Your task to perform on an android device: Open eBay Image 0: 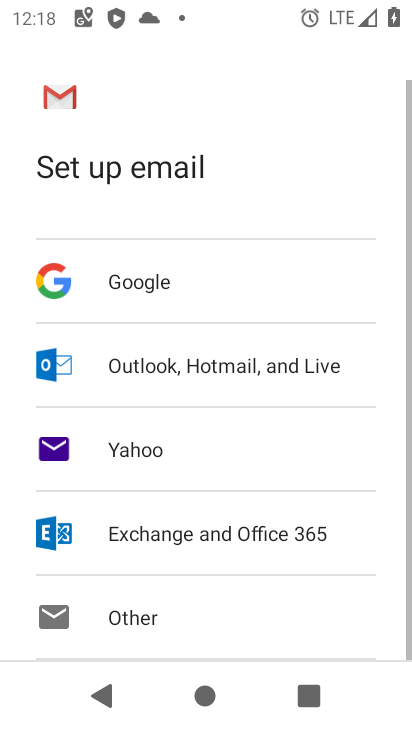
Step 0: press home button
Your task to perform on an android device: Open eBay Image 1: 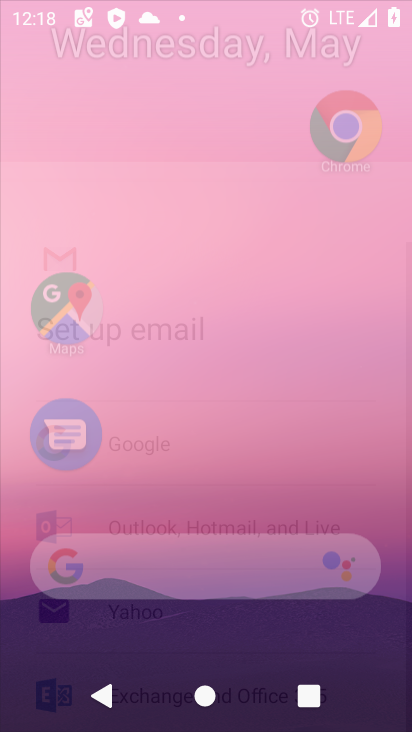
Step 1: drag from (193, 649) to (283, 138)
Your task to perform on an android device: Open eBay Image 2: 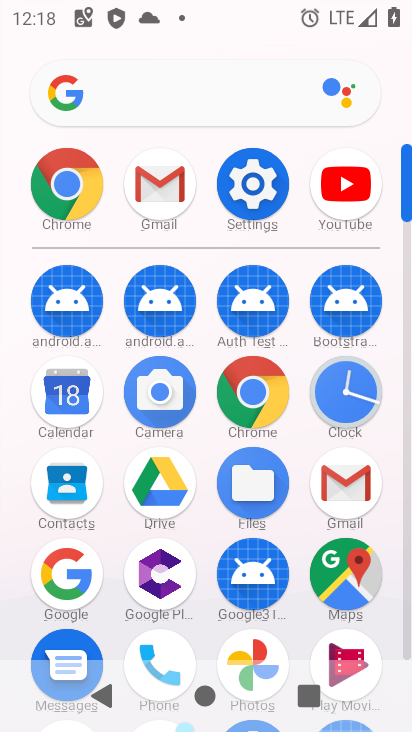
Step 2: click (190, 90)
Your task to perform on an android device: Open eBay Image 3: 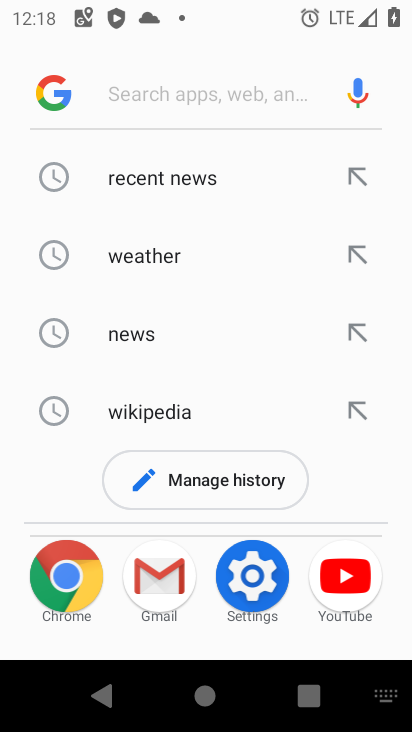
Step 3: type "ebay"
Your task to perform on an android device: Open eBay Image 4: 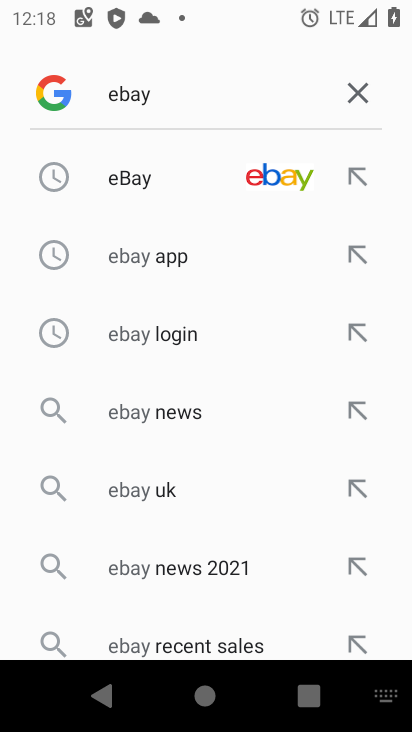
Step 4: click (166, 188)
Your task to perform on an android device: Open eBay Image 5: 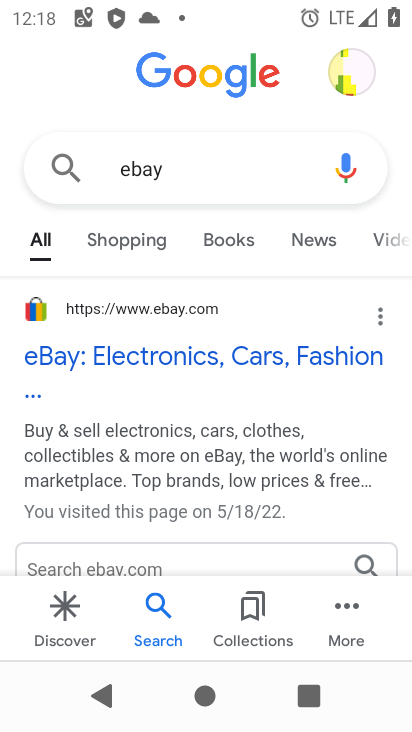
Step 5: click (156, 362)
Your task to perform on an android device: Open eBay Image 6: 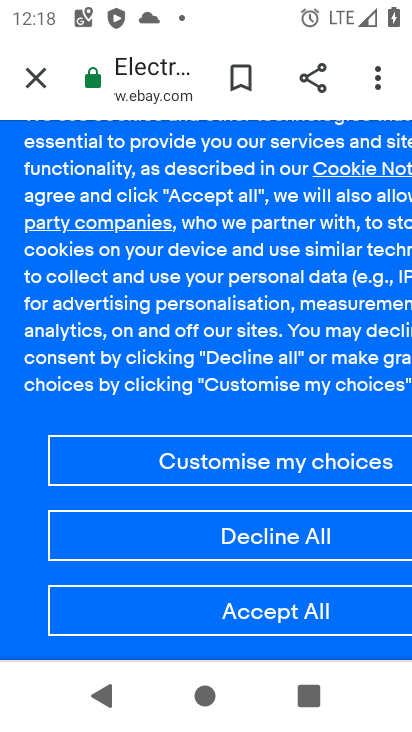
Step 6: task complete